Your task to perform on an android device: Open wifi settings Image 0: 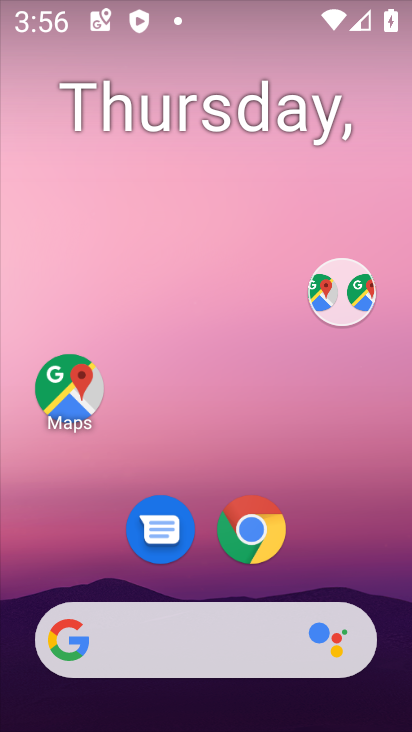
Step 0: drag from (271, 599) to (387, 184)
Your task to perform on an android device: Open wifi settings Image 1: 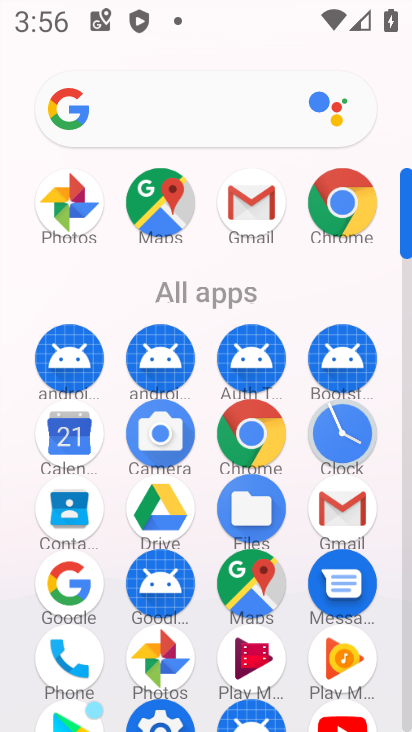
Step 1: drag from (217, 443) to (290, 159)
Your task to perform on an android device: Open wifi settings Image 2: 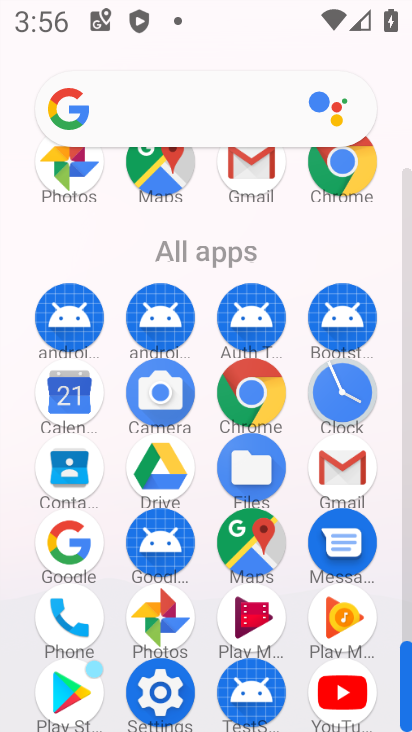
Step 2: click (151, 660)
Your task to perform on an android device: Open wifi settings Image 3: 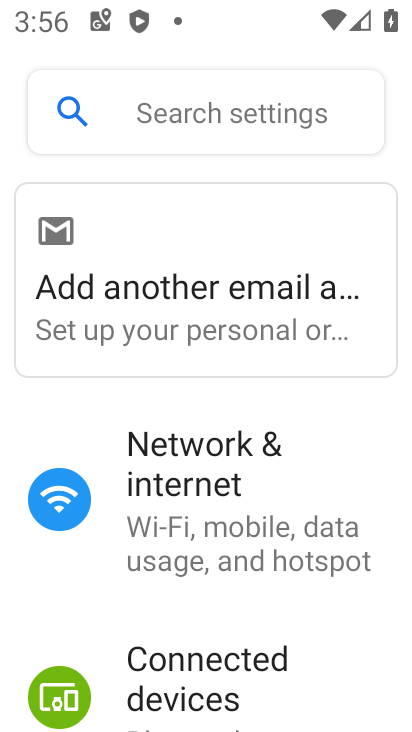
Step 3: click (208, 480)
Your task to perform on an android device: Open wifi settings Image 4: 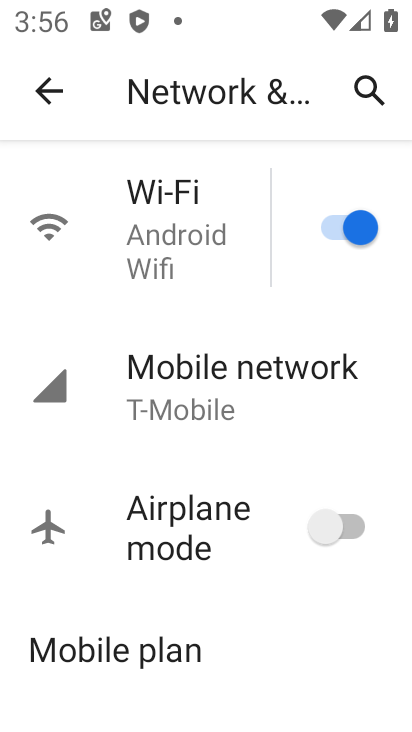
Step 4: click (37, 235)
Your task to perform on an android device: Open wifi settings Image 5: 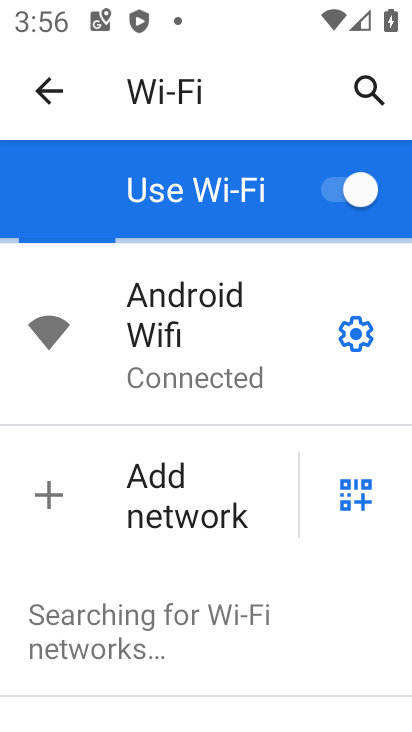
Step 5: task complete